Your task to perform on an android device: Show me productivity apps on the Play Store Image 0: 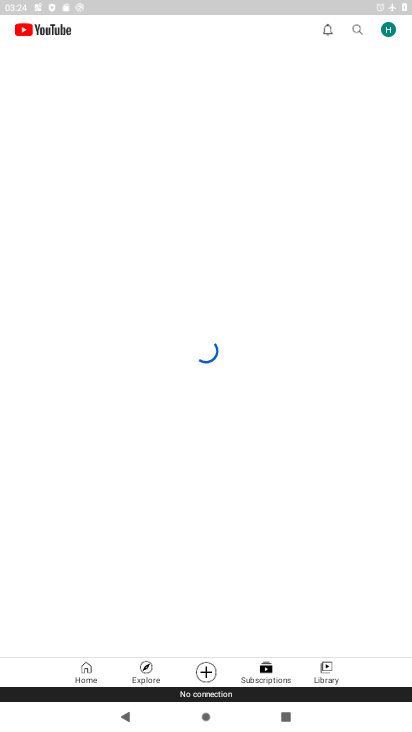
Step 0: press home button
Your task to perform on an android device: Show me productivity apps on the Play Store Image 1: 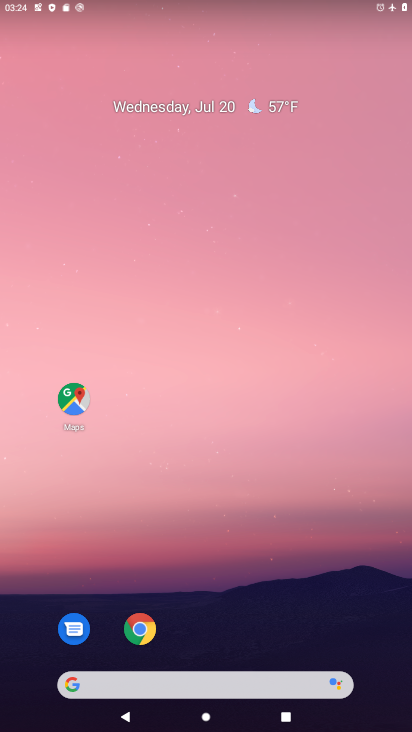
Step 1: drag from (372, 666) to (346, 124)
Your task to perform on an android device: Show me productivity apps on the Play Store Image 2: 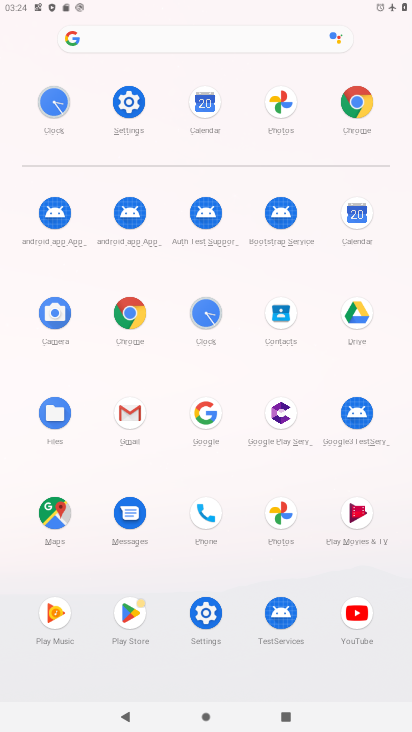
Step 2: click (132, 612)
Your task to perform on an android device: Show me productivity apps on the Play Store Image 3: 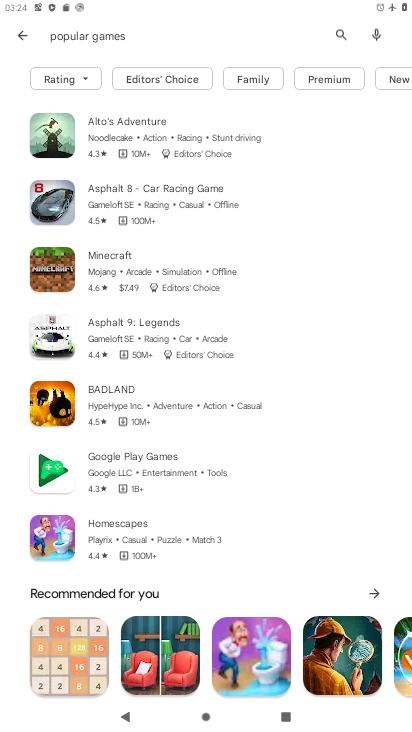
Step 3: press back button
Your task to perform on an android device: Show me productivity apps on the Play Store Image 4: 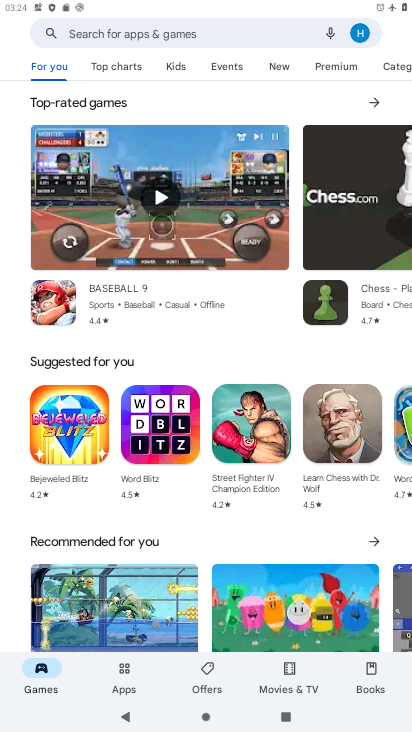
Step 4: click (124, 675)
Your task to perform on an android device: Show me productivity apps on the Play Store Image 5: 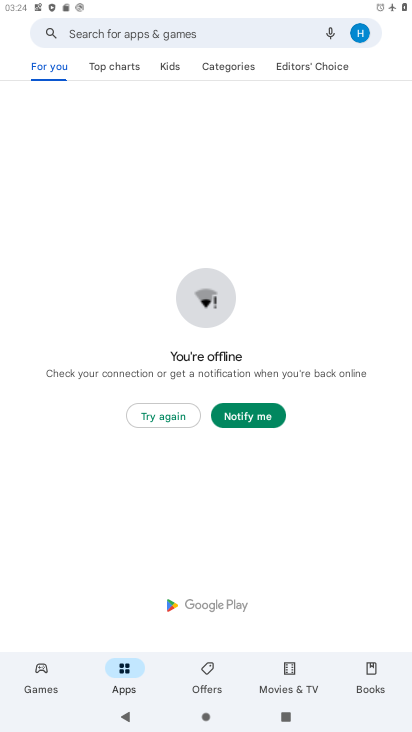
Step 5: click (234, 65)
Your task to perform on an android device: Show me productivity apps on the Play Store Image 6: 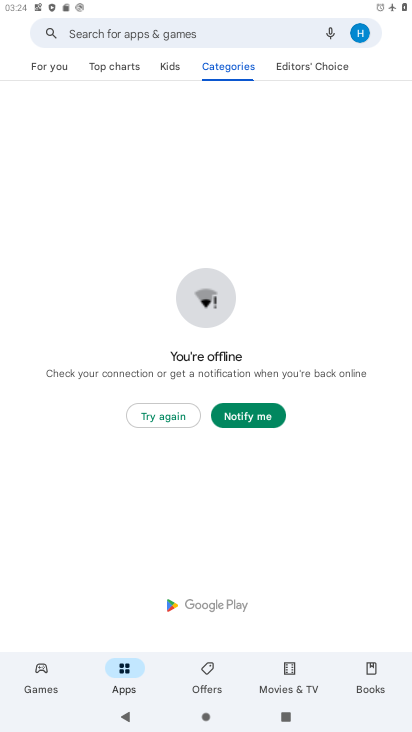
Step 6: click (150, 417)
Your task to perform on an android device: Show me productivity apps on the Play Store Image 7: 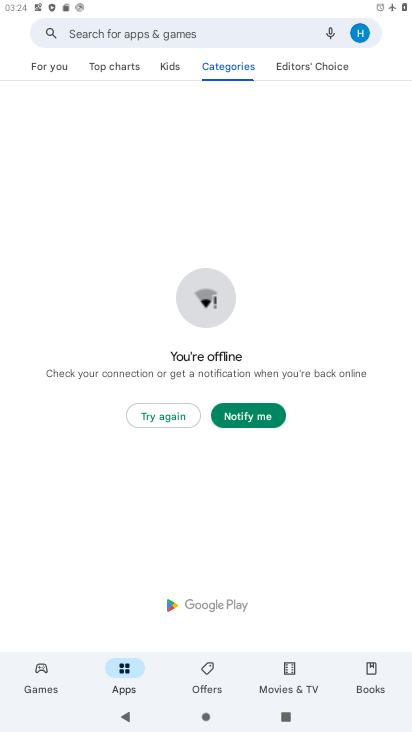
Step 7: task complete